Your task to perform on an android device: Open the Play Movies app and select the watchlist tab. Image 0: 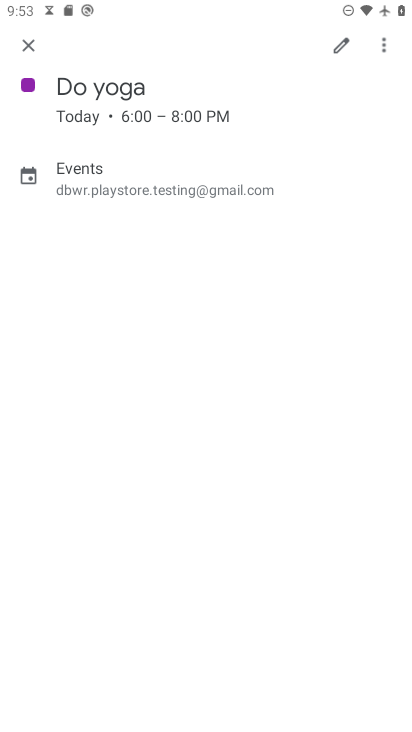
Step 0: press home button
Your task to perform on an android device: Open the Play Movies app and select the watchlist tab. Image 1: 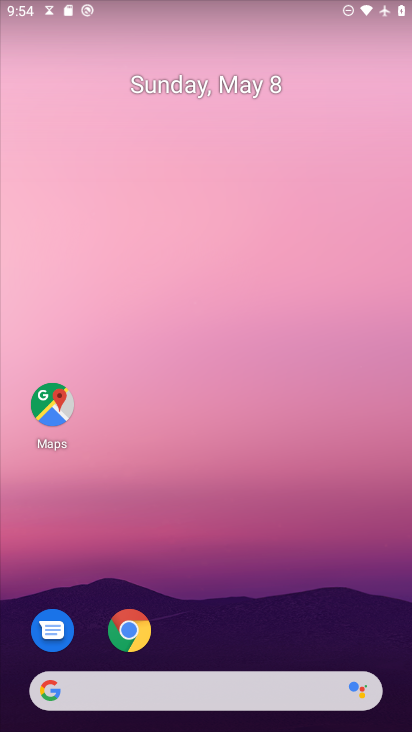
Step 1: drag from (200, 650) to (286, 173)
Your task to perform on an android device: Open the Play Movies app and select the watchlist tab. Image 2: 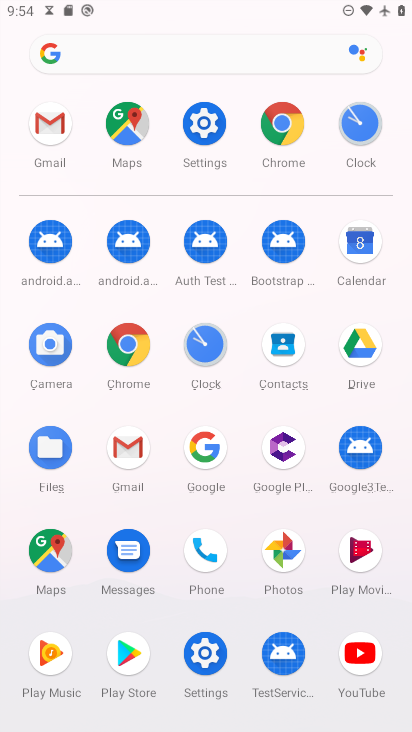
Step 2: click (371, 654)
Your task to perform on an android device: Open the Play Movies app and select the watchlist tab. Image 3: 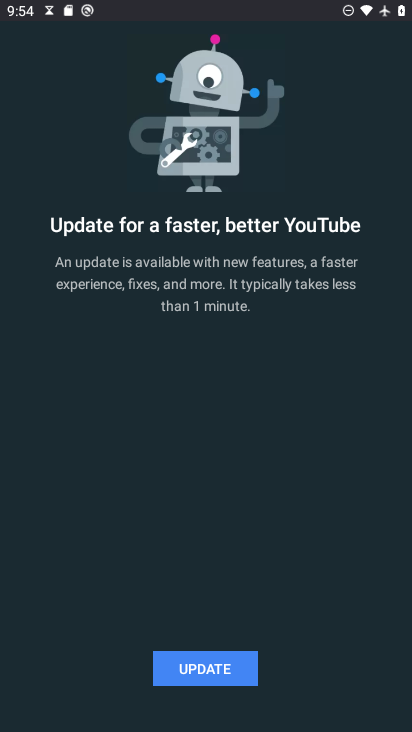
Step 3: press home button
Your task to perform on an android device: Open the Play Movies app and select the watchlist tab. Image 4: 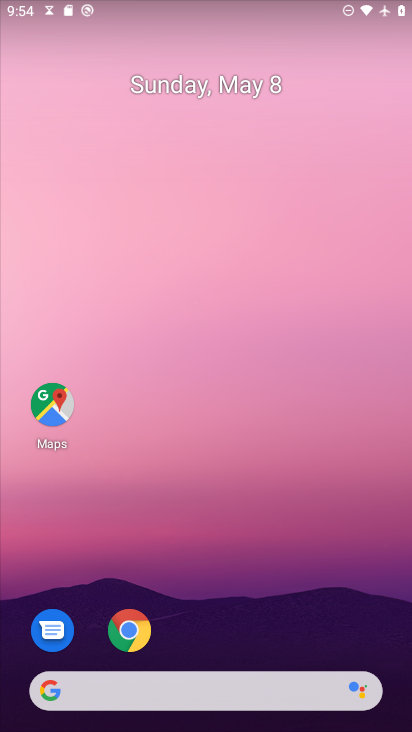
Step 4: drag from (216, 687) to (341, 235)
Your task to perform on an android device: Open the Play Movies app and select the watchlist tab. Image 5: 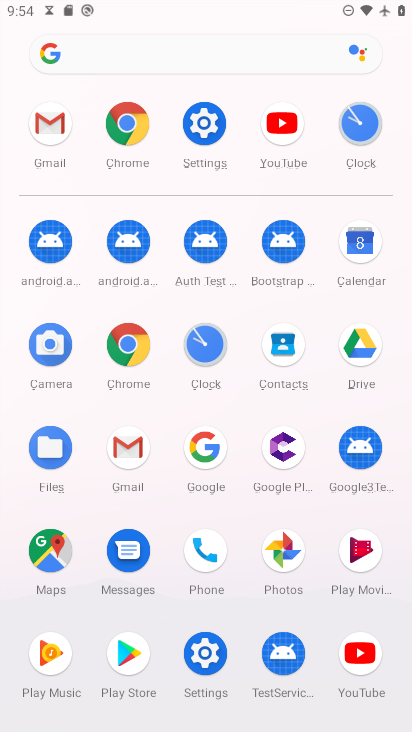
Step 5: click (362, 539)
Your task to perform on an android device: Open the Play Movies app and select the watchlist tab. Image 6: 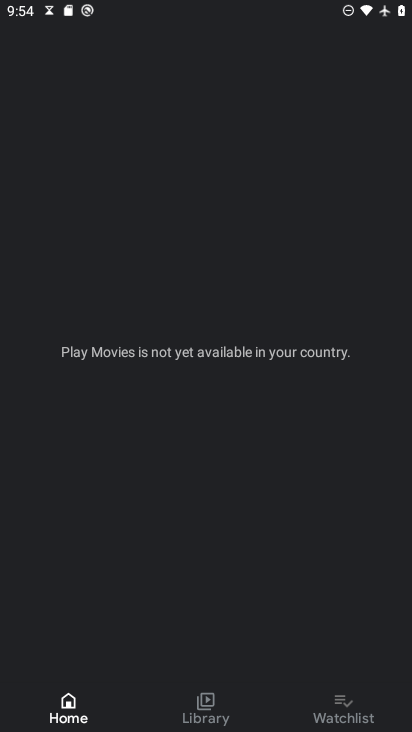
Step 6: click (339, 700)
Your task to perform on an android device: Open the Play Movies app and select the watchlist tab. Image 7: 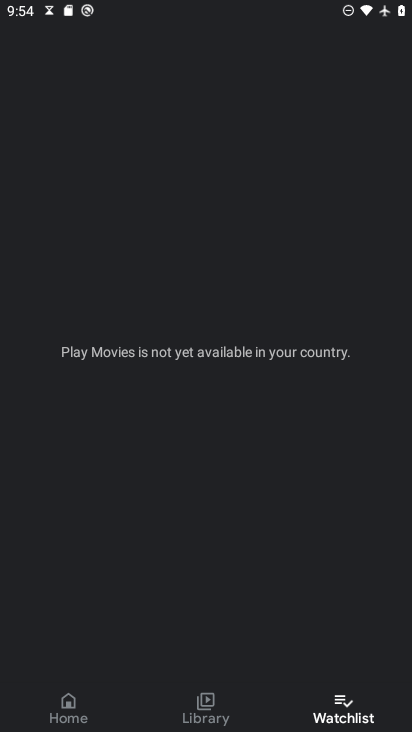
Step 7: task complete